Your task to perform on an android device: What is the news today? Image 0: 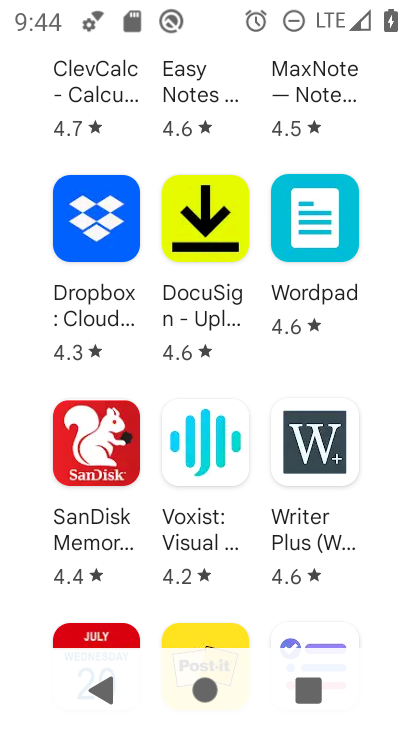
Step 0: press home button
Your task to perform on an android device: What is the news today? Image 1: 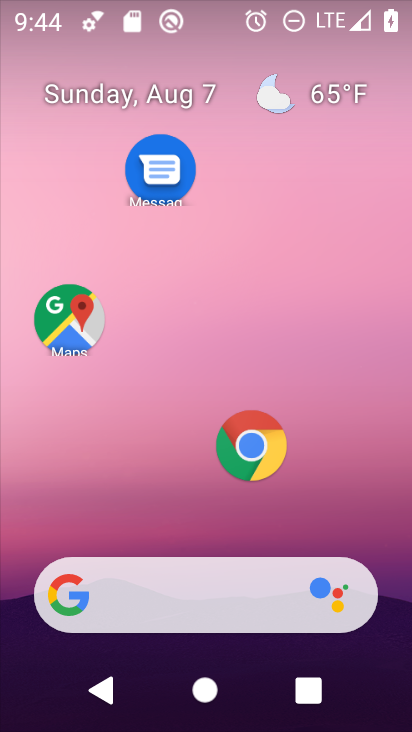
Step 1: task complete